Your task to perform on an android device: install app "Microsoft Outlook" Image 0: 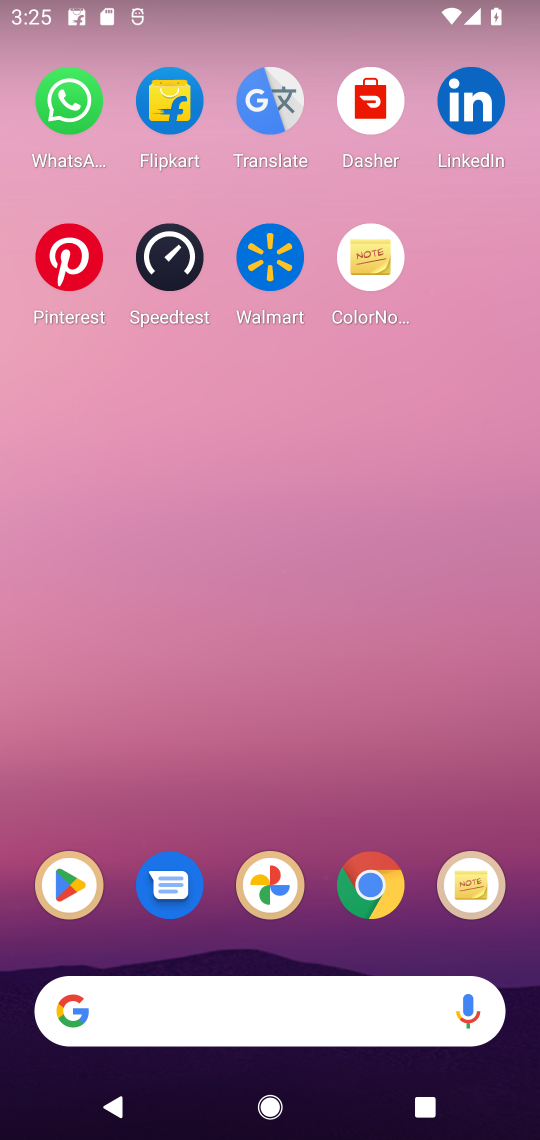
Step 0: click (72, 894)
Your task to perform on an android device: install app "Microsoft Outlook" Image 1: 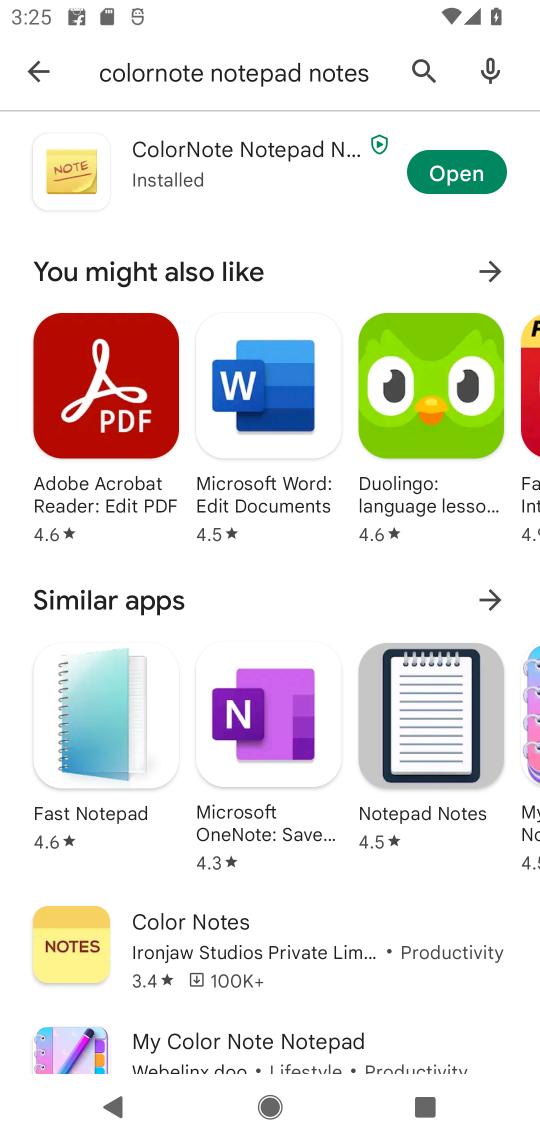
Step 1: click (424, 65)
Your task to perform on an android device: install app "Microsoft Outlook" Image 2: 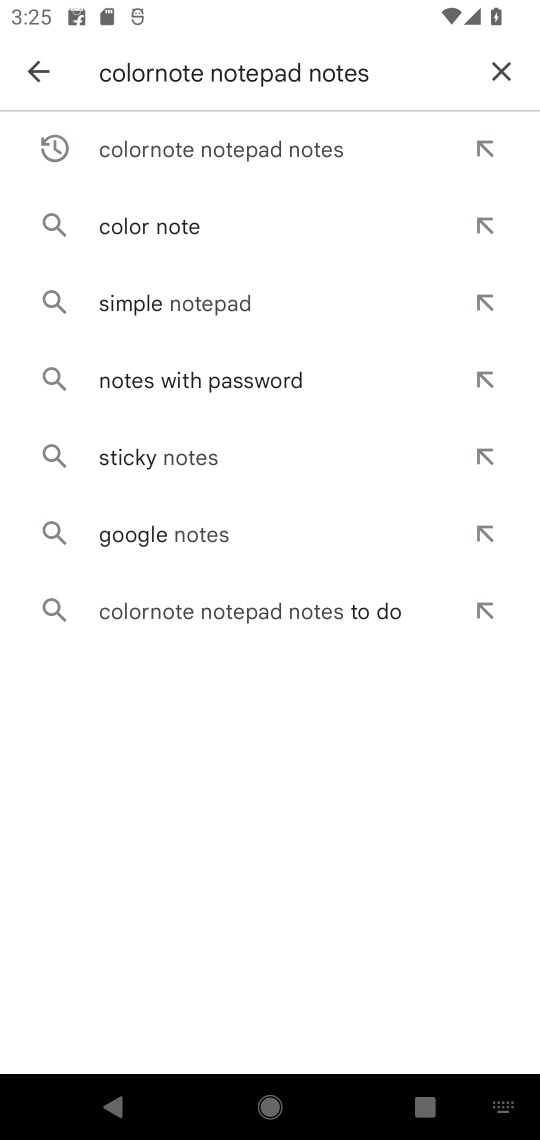
Step 2: click (514, 73)
Your task to perform on an android device: install app "Microsoft Outlook" Image 3: 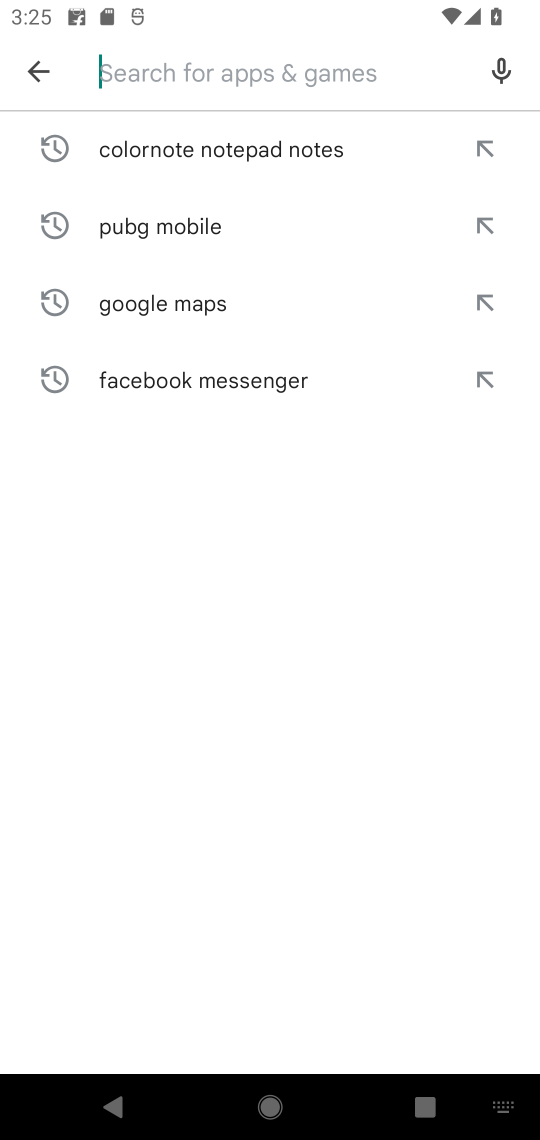
Step 3: type "Microsoft Outlook"
Your task to perform on an android device: install app "Microsoft Outlook" Image 4: 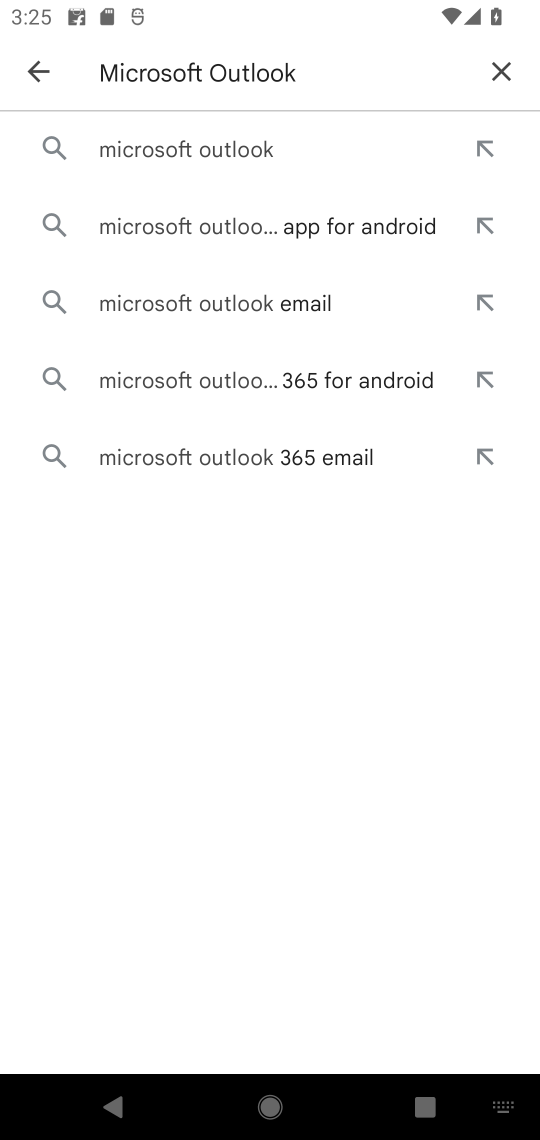
Step 4: click (205, 151)
Your task to perform on an android device: install app "Microsoft Outlook" Image 5: 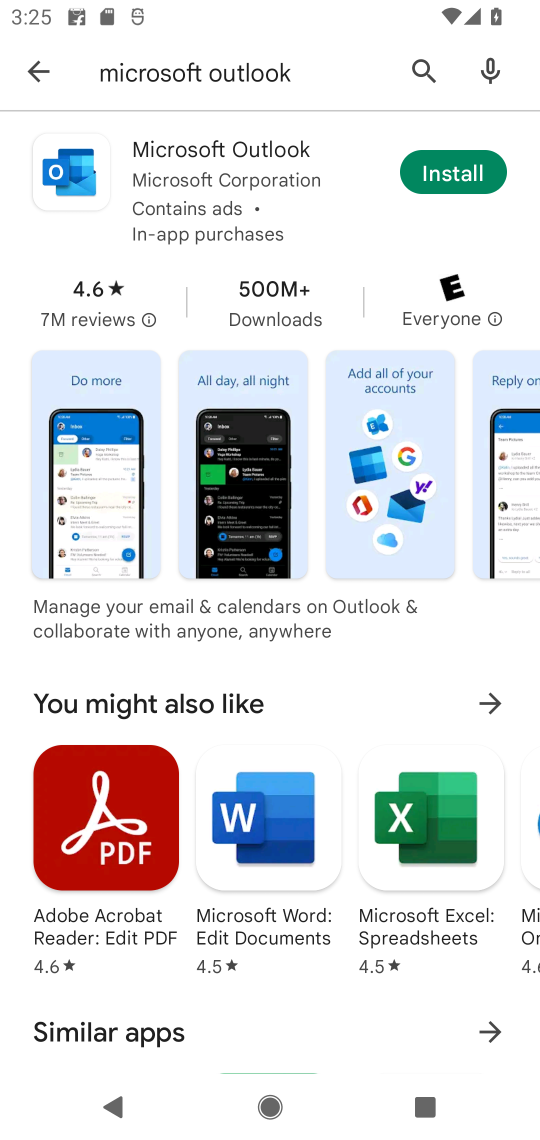
Step 5: click (469, 158)
Your task to perform on an android device: install app "Microsoft Outlook" Image 6: 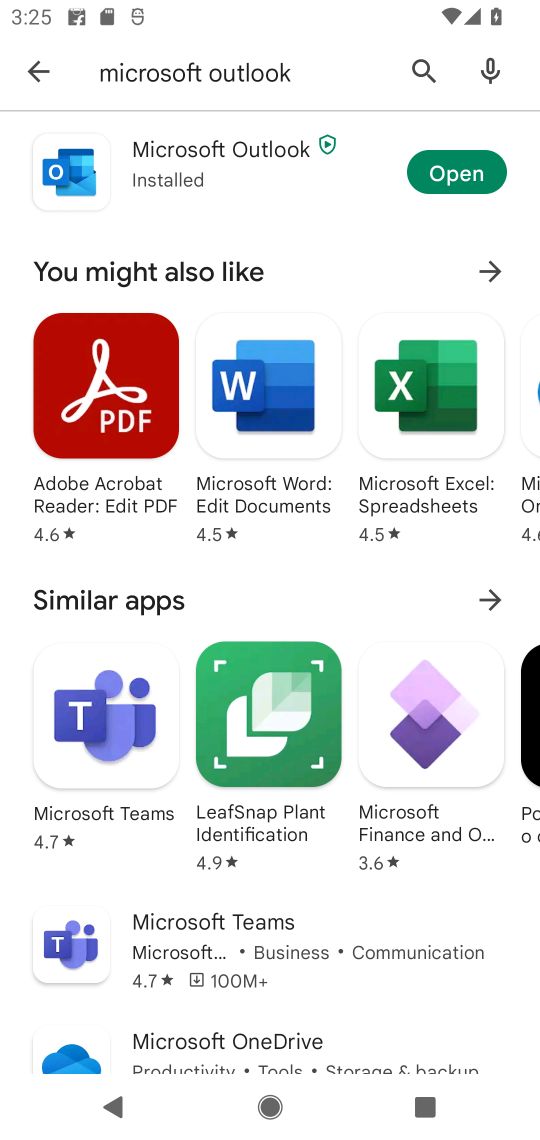
Step 6: task complete